Your task to perform on an android device: open a bookmark in the chrome app Image 0: 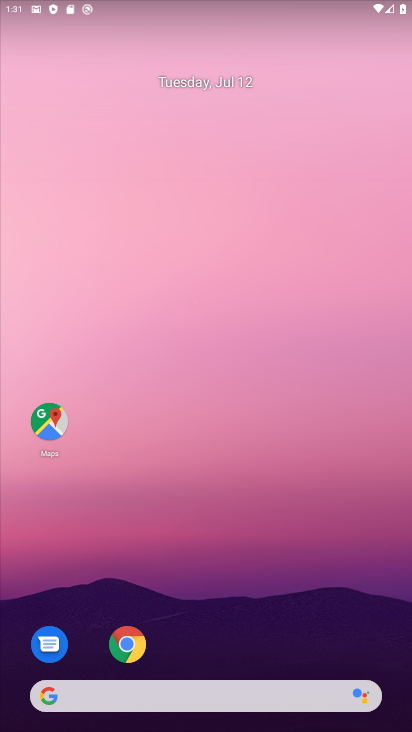
Step 0: click (146, 645)
Your task to perform on an android device: open a bookmark in the chrome app Image 1: 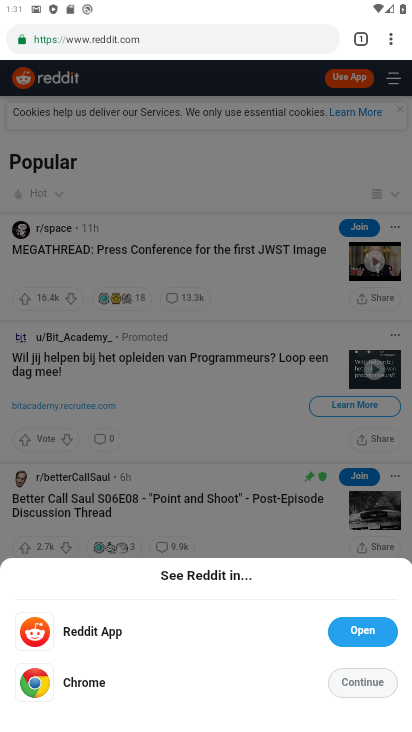
Step 1: drag from (389, 43) to (262, 142)
Your task to perform on an android device: open a bookmark in the chrome app Image 2: 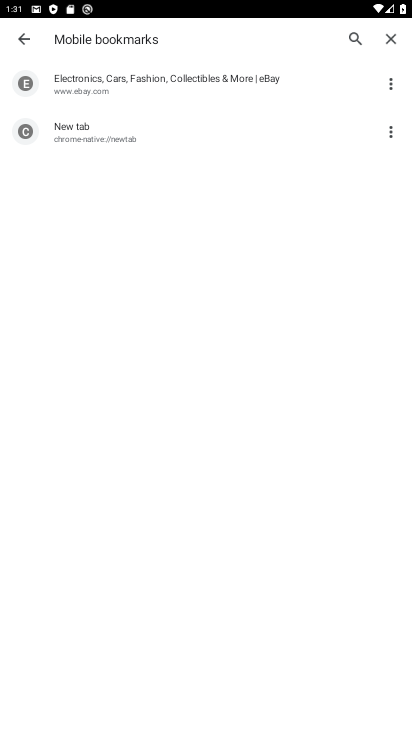
Step 2: click (100, 85)
Your task to perform on an android device: open a bookmark in the chrome app Image 3: 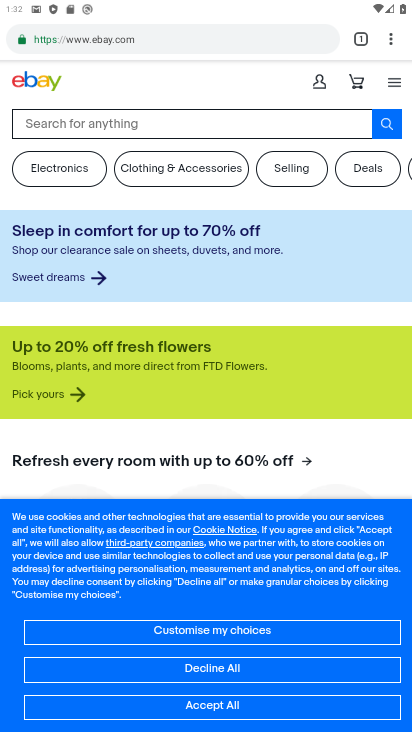
Step 3: drag from (395, 34) to (263, 145)
Your task to perform on an android device: open a bookmark in the chrome app Image 4: 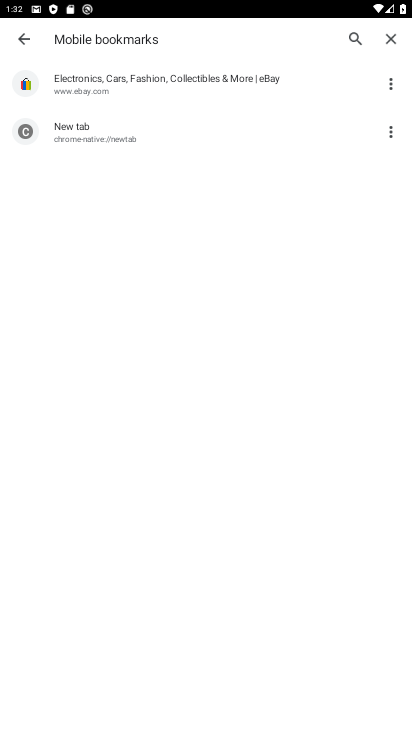
Step 4: click (77, 88)
Your task to perform on an android device: open a bookmark in the chrome app Image 5: 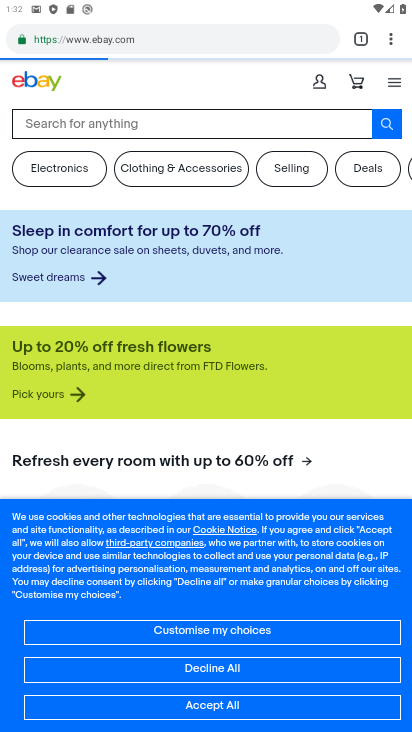
Step 5: task complete